Your task to perform on an android device: Go to Yahoo.com Image 0: 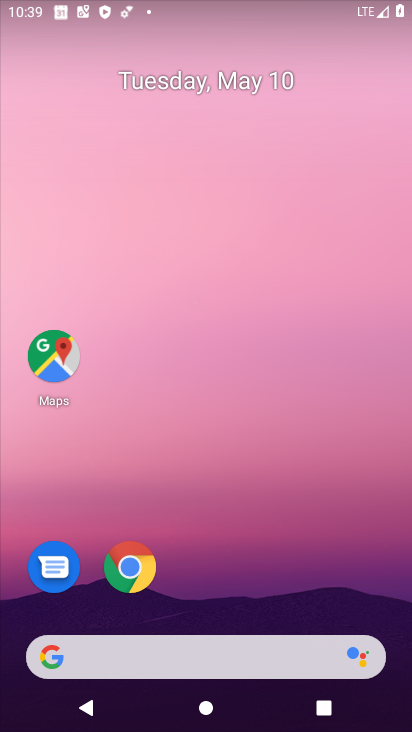
Step 0: click (133, 571)
Your task to perform on an android device: Go to Yahoo.com Image 1: 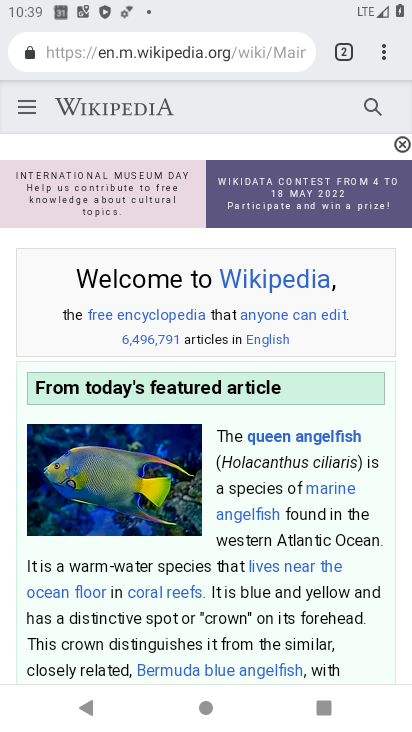
Step 1: click (333, 50)
Your task to perform on an android device: Go to Yahoo.com Image 2: 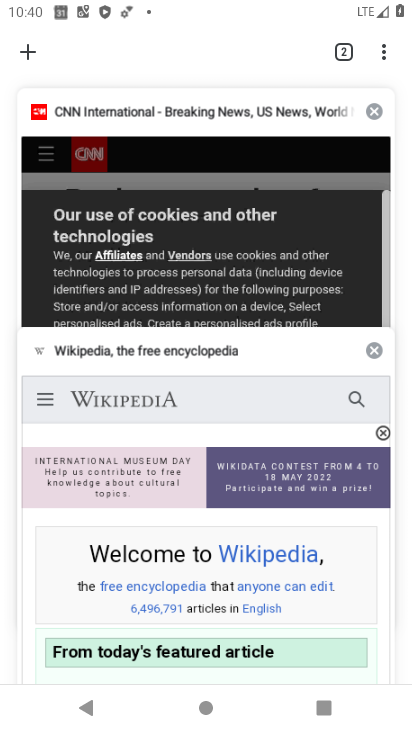
Step 2: click (336, 44)
Your task to perform on an android device: Go to Yahoo.com Image 3: 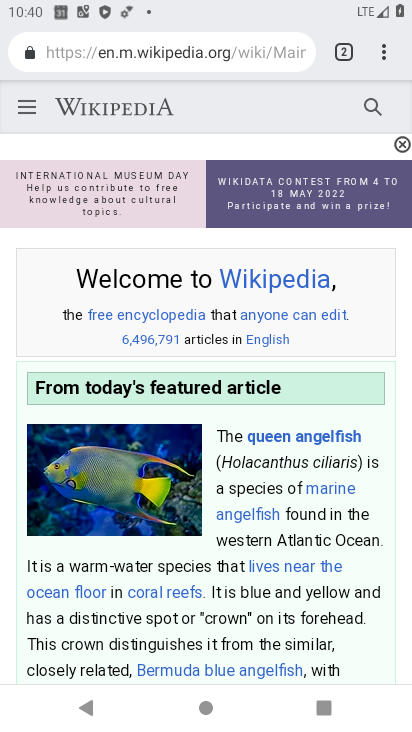
Step 3: click (342, 52)
Your task to perform on an android device: Go to Yahoo.com Image 4: 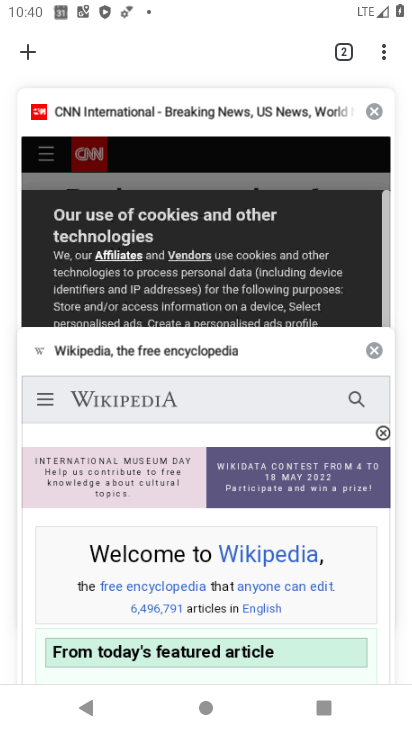
Step 4: click (20, 46)
Your task to perform on an android device: Go to Yahoo.com Image 5: 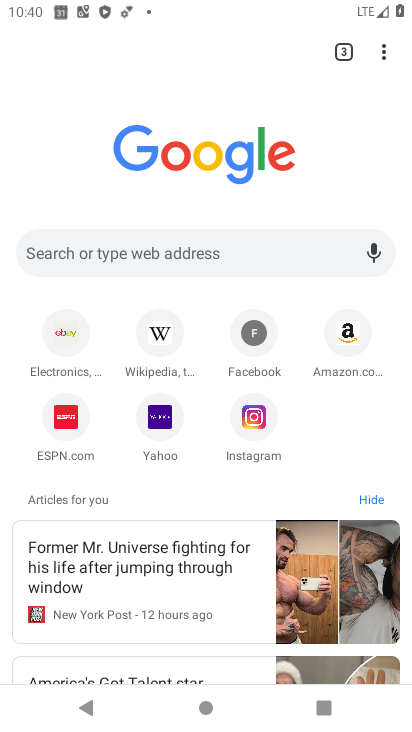
Step 5: click (157, 430)
Your task to perform on an android device: Go to Yahoo.com Image 6: 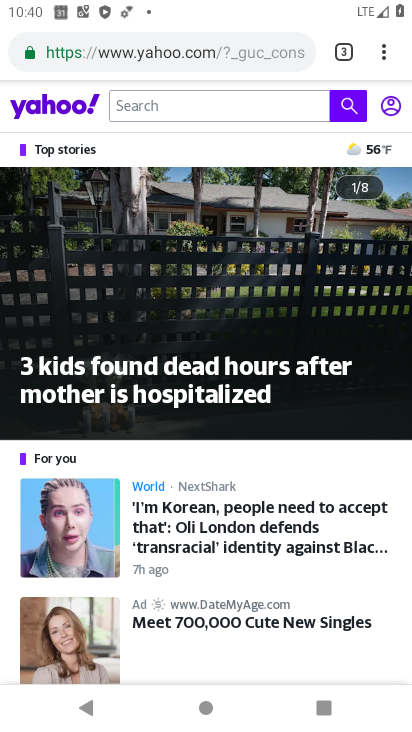
Step 6: task complete